Your task to perform on an android device: turn off notifications settings in the gmail app Image 0: 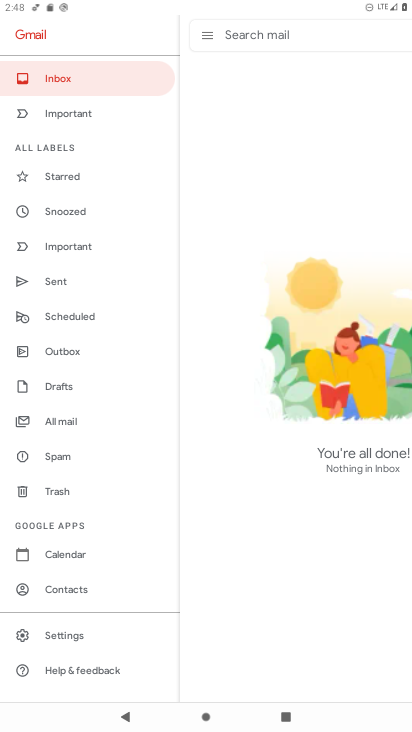
Step 0: click (64, 628)
Your task to perform on an android device: turn off notifications settings in the gmail app Image 1: 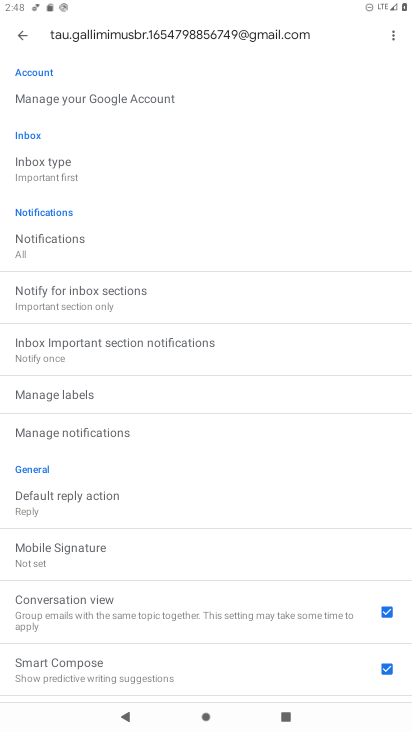
Step 1: click (76, 435)
Your task to perform on an android device: turn off notifications settings in the gmail app Image 2: 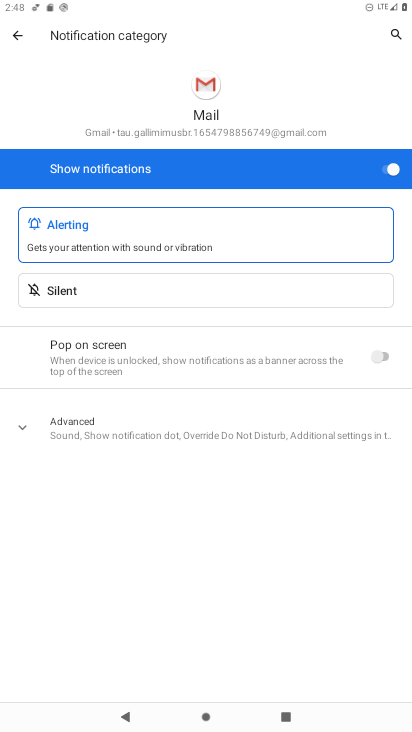
Step 2: click (382, 164)
Your task to perform on an android device: turn off notifications settings in the gmail app Image 3: 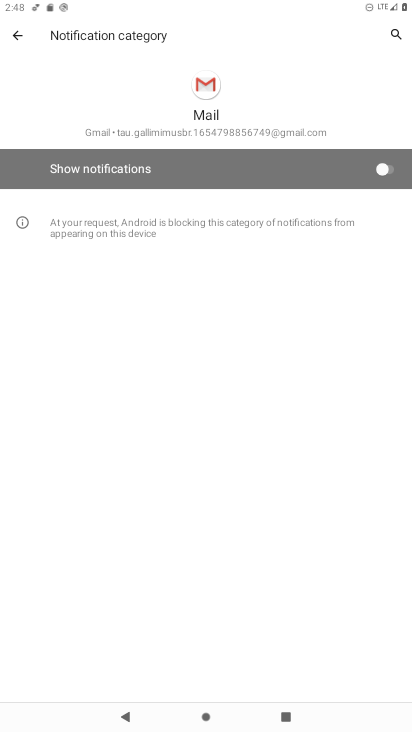
Step 3: task complete